Your task to perform on an android device: Go to settings Image 0: 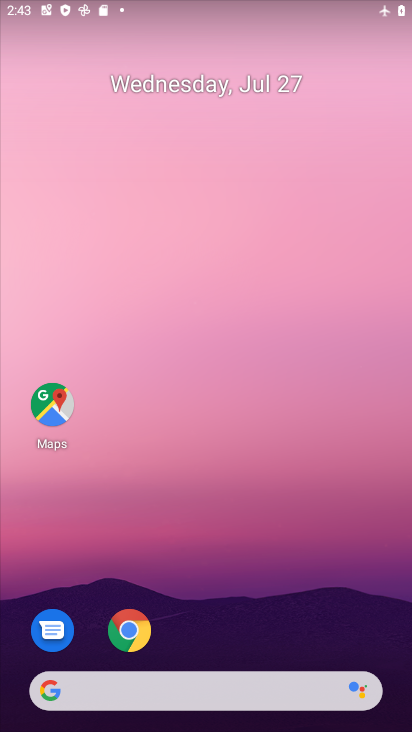
Step 0: drag from (408, 679) to (401, 206)
Your task to perform on an android device: Go to settings Image 1: 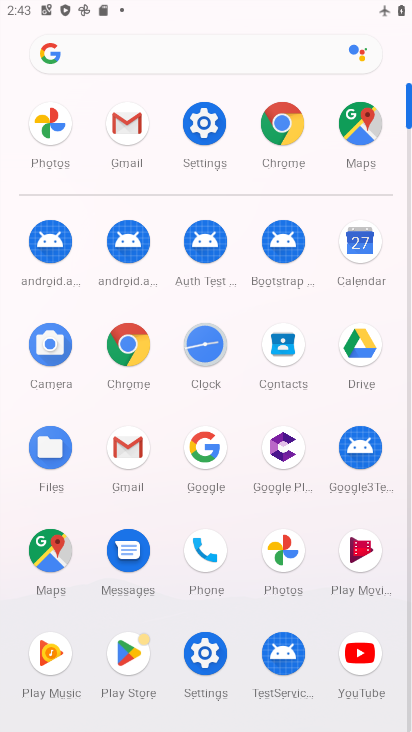
Step 1: click (206, 648)
Your task to perform on an android device: Go to settings Image 2: 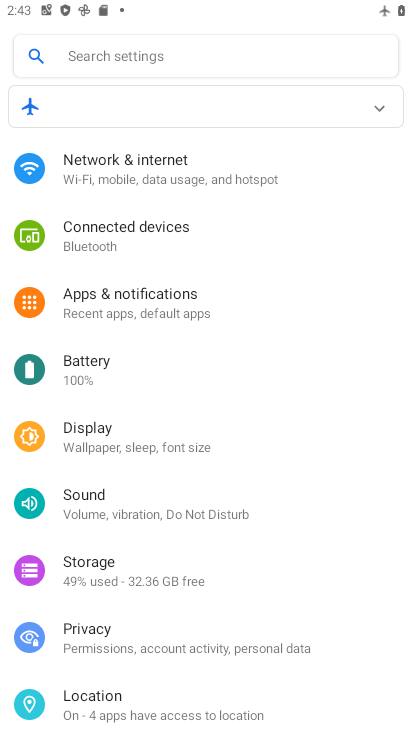
Step 2: task complete